Your task to perform on an android device: Open the stopwatch Image 0: 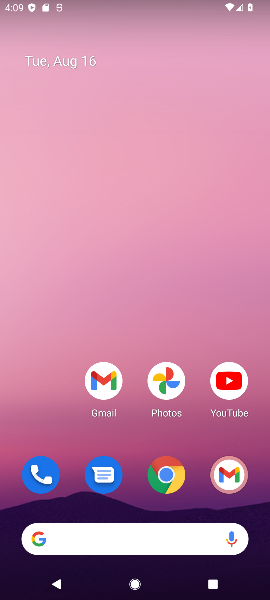
Step 0: drag from (200, 493) to (257, 181)
Your task to perform on an android device: Open the stopwatch Image 1: 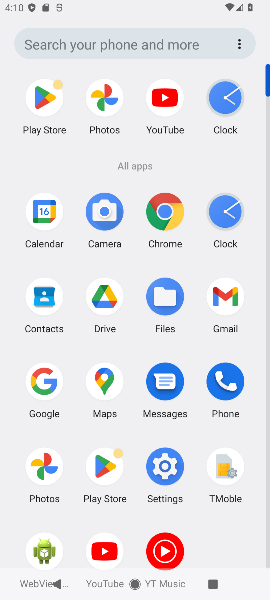
Step 1: click (237, 82)
Your task to perform on an android device: Open the stopwatch Image 2: 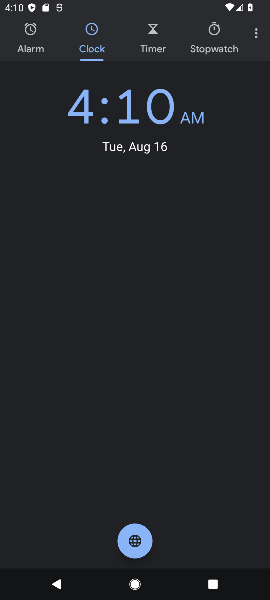
Step 2: click (210, 30)
Your task to perform on an android device: Open the stopwatch Image 3: 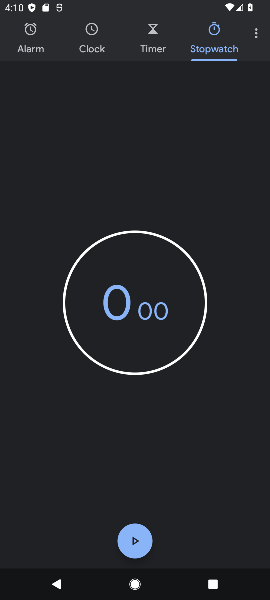
Step 3: task complete